Your task to perform on an android device: open chrome and create a bookmark for the current page Image 0: 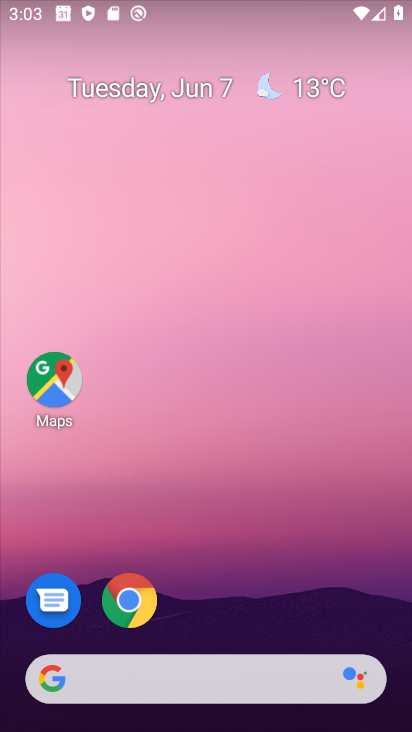
Step 0: click (126, 604)
Your task to perform on an android device: open chrome and create a bookmark for the current page Image 1: 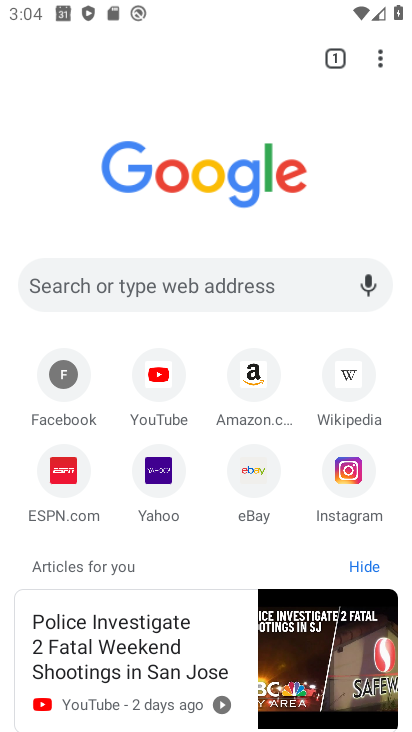
Step 1: click (379, 60)
Your task to perform on an android device: open chrome and create a bookmark for the current page Image 2: 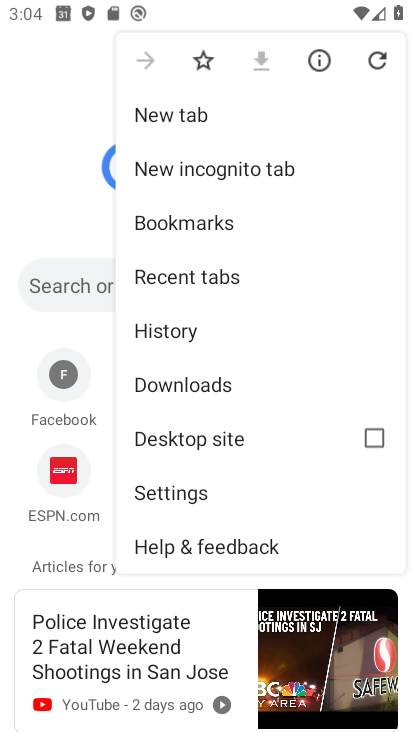
Step 2: click (200, 62)
Your task to perform on an android device: open chrome and create a bookmark for the current page Image 3: 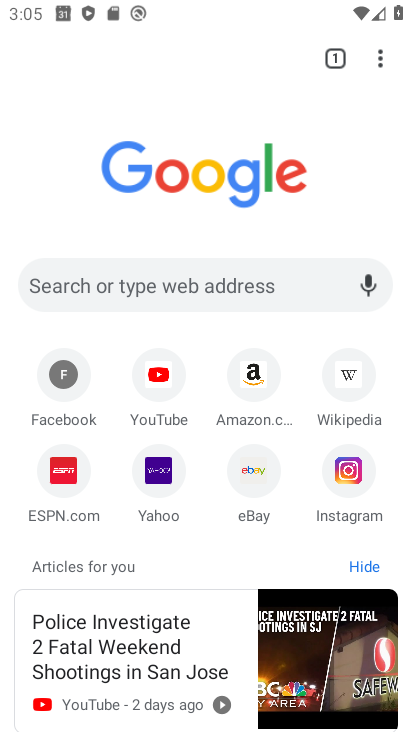
Step 3: task complete